Your task to perform on an android device: Open the map Image 0: 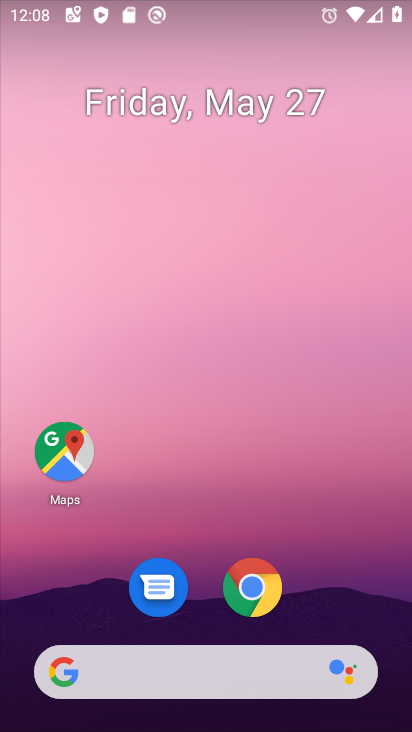
Step 0: drag from (211, 713) to (235, 101)
Your task to perform on an android device: Open the map Image 1: 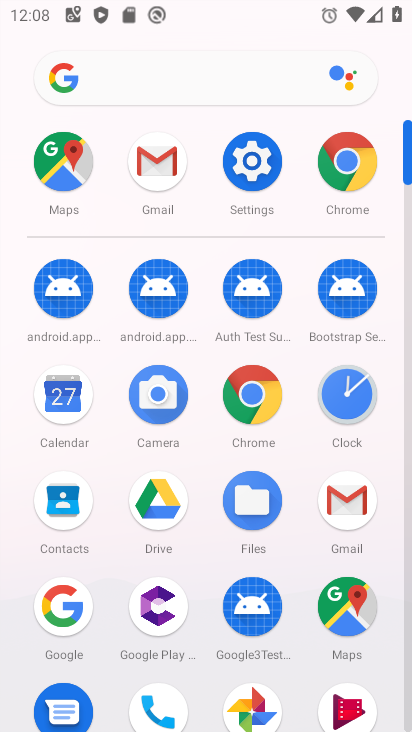
Step 1: click (71, 171)
Your task to perform on an android device: Open the map Image 2: 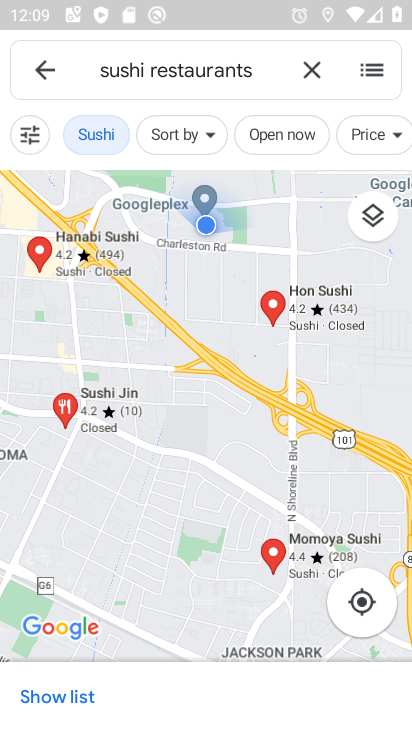
Step 2: click (38, 81)
Your task to perform on an android device: Open the map Image 3: 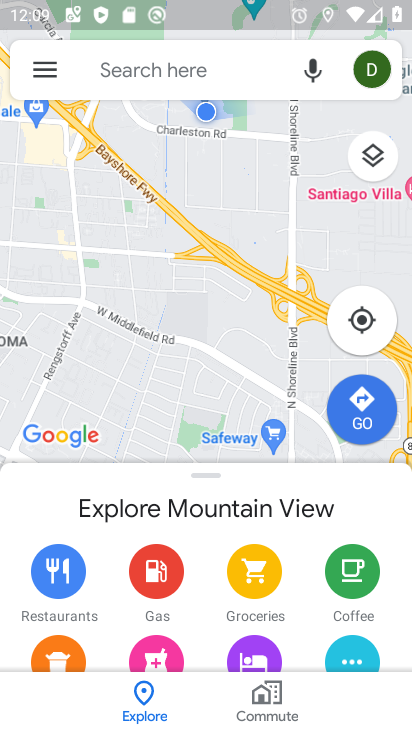
Step 3: task complete